Your task to perform on an android device: Open calendar and show me the third week of next month Image 0: 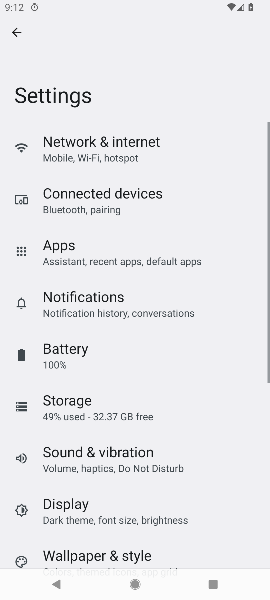
Step 0: press home button
Your task to perform on an android device: Open calendar and show me the third week of next month Image 1: 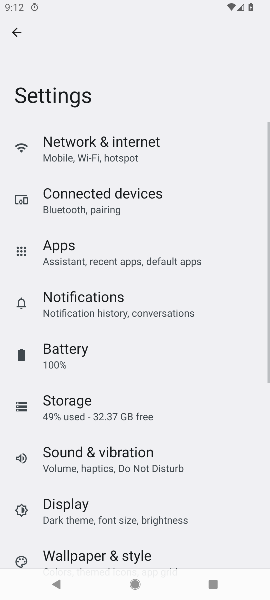
Step 1: press home button
Your task to perform on an android device: Open calendar and show me the third week of next month Image 2: 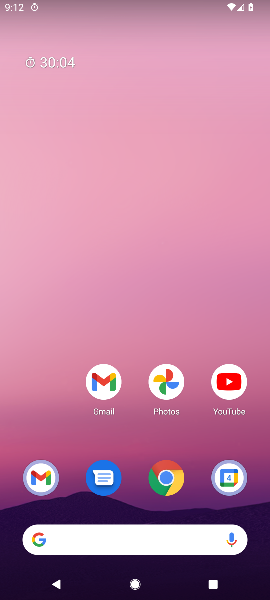
Step 2: drag from (155, 470) to (218, 594)
Your task to perform on an android device: Open calendar and show me the third week of next month Image 3: 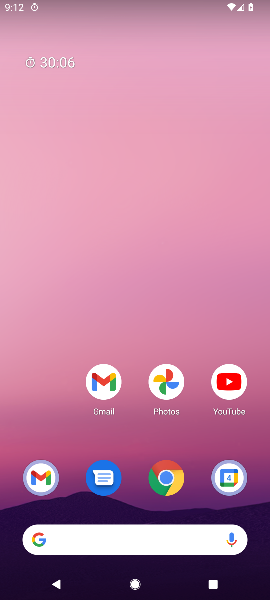
Step 3: click (223, 479)
Your task to perform on an android device: Open calendar and show me the third week of next month Image 4: 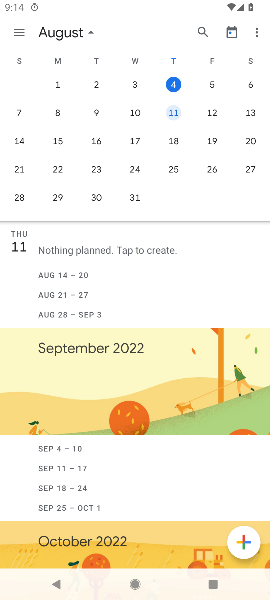
Step 4: drag from (230, 164) to (3, 141)
Your task to perform on an android device: Open calendar and show me the third week of next month Image 5: 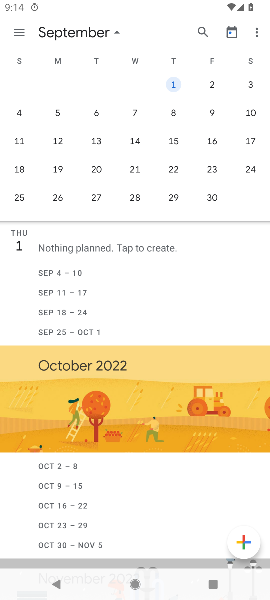
Step 5: click (172, 139)
Your task to perform on an android device: Open calendar and show me the third week of next month Image 6: 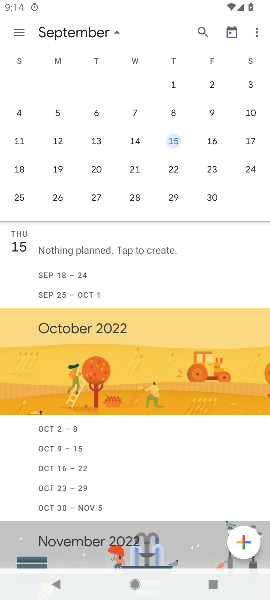
Step 6: task complete